Your task to perform on an android device: turn vacation reply on in the gmail app Image 0: 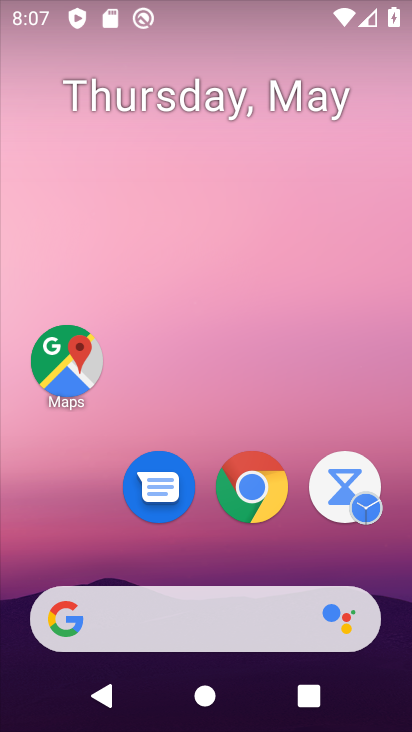
Step 0: drag from (196, 565) to (216, 184)
Your task to perform on an android device: turn vacation reply on in the gmail app Image 1: 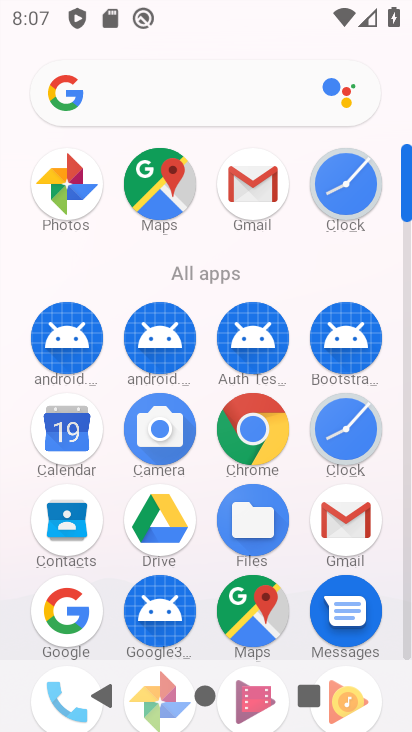
Step 1: click (353, 532)
Your task to perform on an android device: turn vacation reply on in the gmail app Image 2: 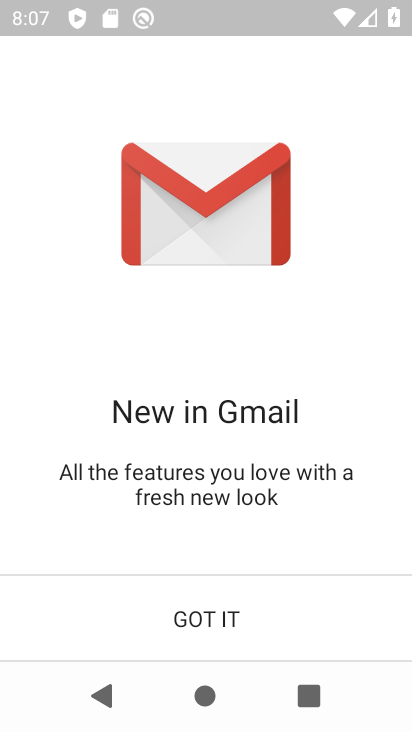
Step 2: click (350, 619)
Your task to perform on an android device: turn vacation reply on in the gmail app Image 3: 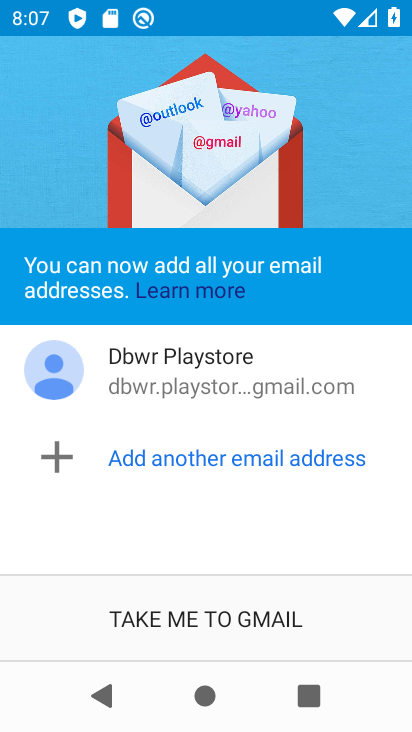
Step 3: click (348, 621)
Your task to perform on an android device: turn vacation reply on in the gmail app Image 4: 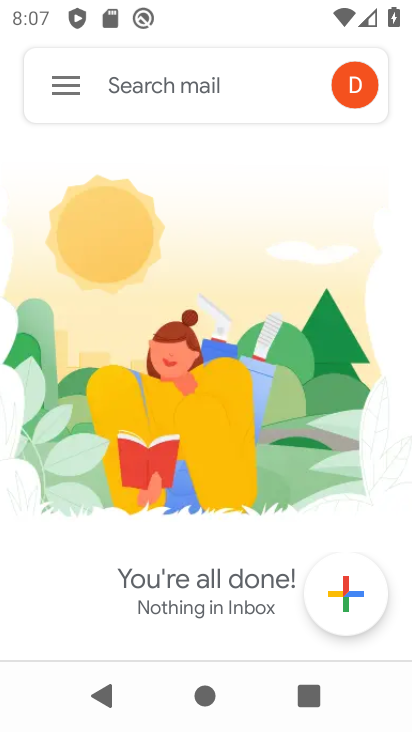
Step 4: click (66, 83)
Your task to perform on an android device: turn vacation reply on in the gmail app Image 5: 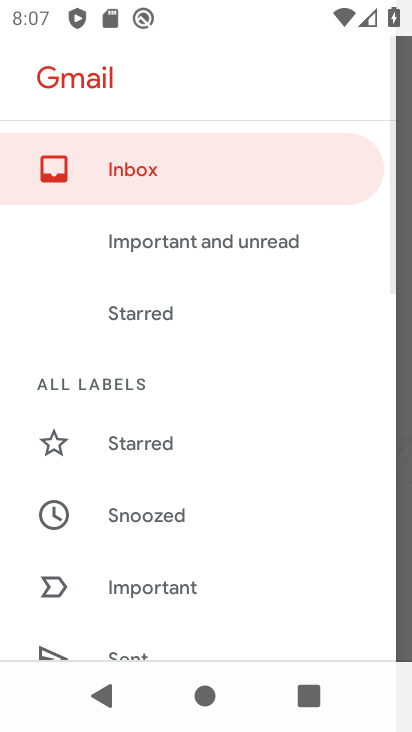
Step 5: drag from (281, 522) to (285, 414)
Your task to perform on an android device: turn vacation reply on in the gmail app Image 6: 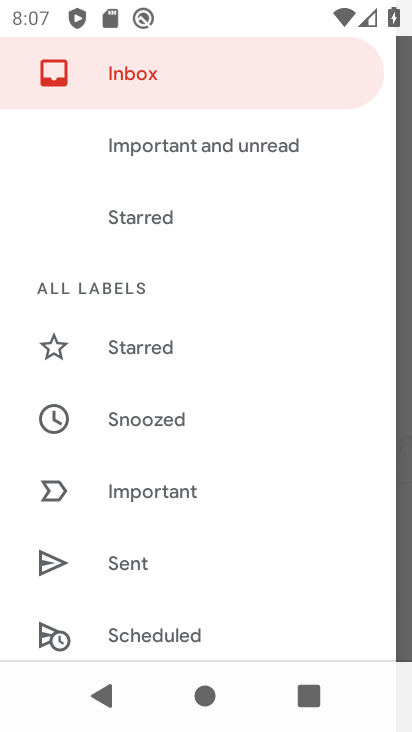
Step 6: drag from (306, 575) to (301, 454)
Your task to perform on an android device: turn vacation reply on in the gmail app Image 7: 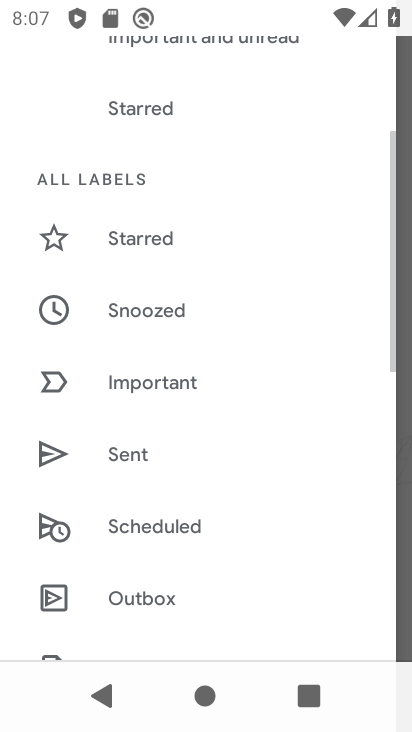
Step 7: drag from (309, 611) to (308, 485)
Your task to perform on an android device: turn vacation reply on in the gmail app Image 8: 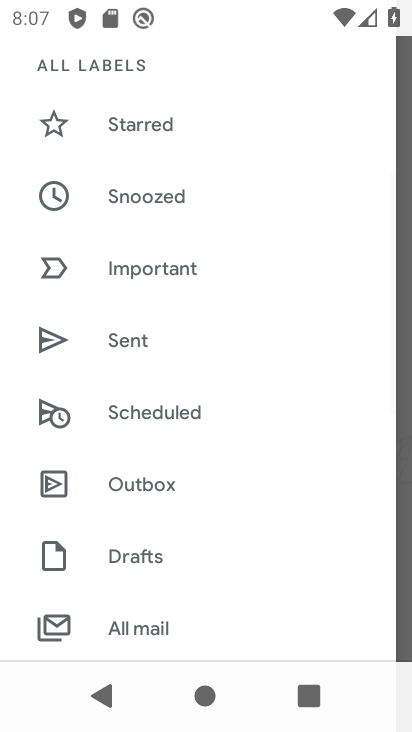
Step 8: drag from (321, 596) to (322, 475)
Your task to perform on an android device: turn vacation reply on in the gmail app Image 9: 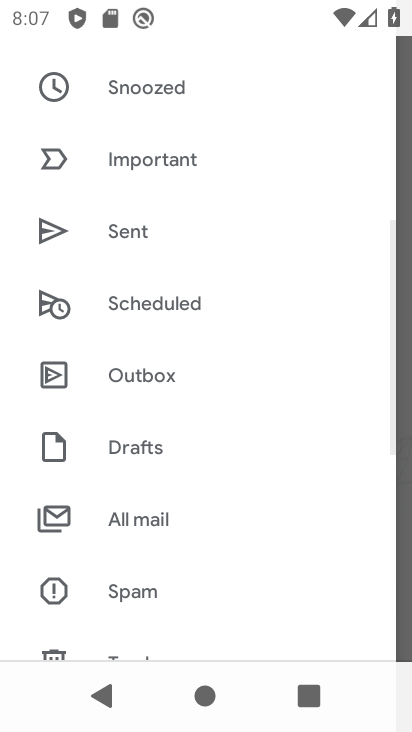
Step 9: drag from (318, 599) to (323, 477)
Your task to perform on an android device: turn vacation reply on in the gmail app Image 10: 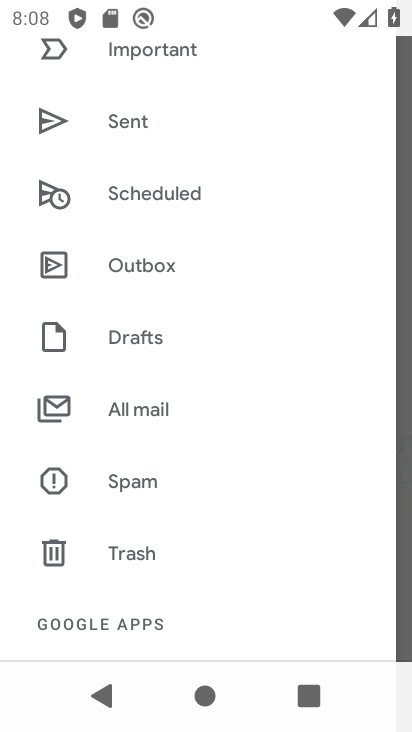
Step 10: drag from (327, 581) to (320, 456)
Your task to perform on an android device: turn vacation reply on in the gmail app Image 11: 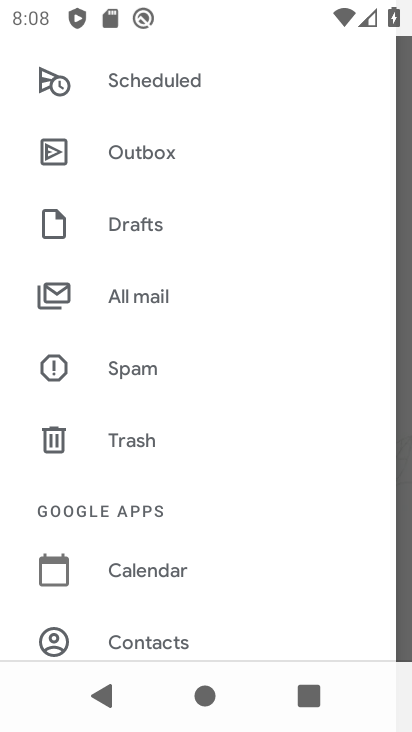
Step 11: drag from (326, 611) to (325, 501)
Your task to perform on an android device: turn vacation reply on in the gmail app Image 12: 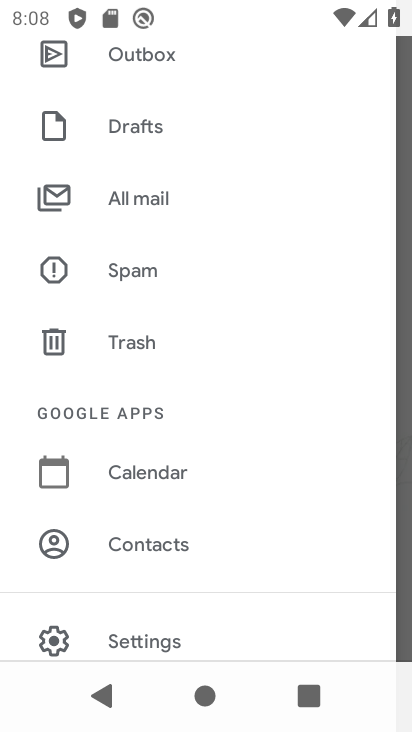
Step 12: drag from (334, 614) to (327, 422)
Your task to perform on an android device: turn vacation reply on in the gmail app Image 13: 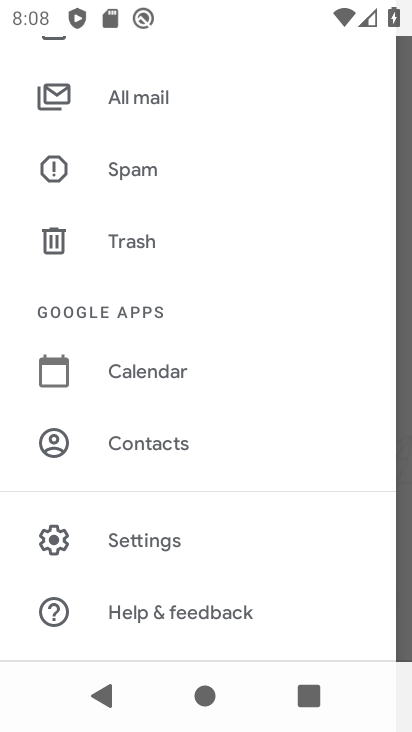
Step 13: click (264, 542)
Your task to perform on an android device: turn vacation reply on in the gmail app Image 14: 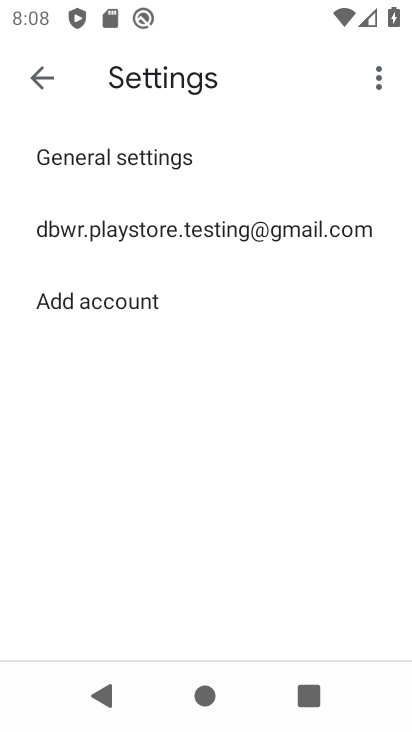
Step 14: click (315, 240)
Your task to perform on an android device: turn vacation reply on in the gmail app Image 15: 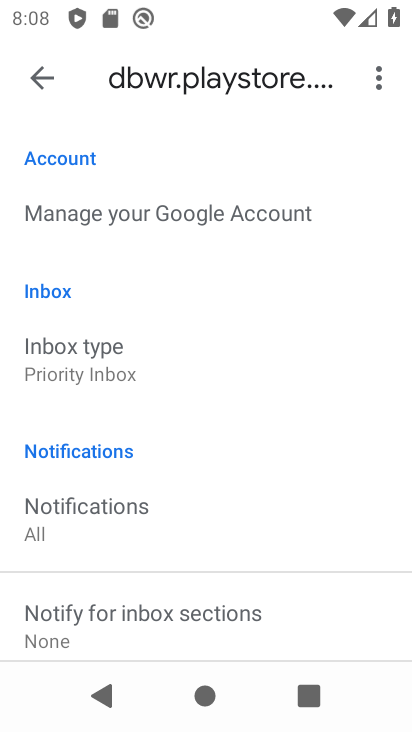
Step 15: drag from (339, 570) to (332, 452)
Your task to perform on an android device: turn vacation reply on in the gmail app Image 16: 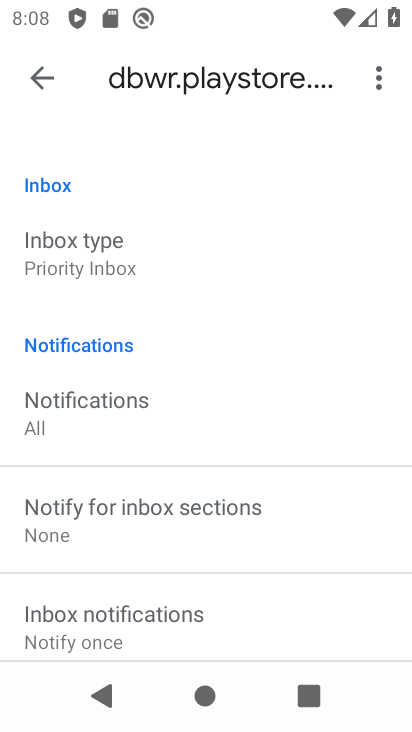
Step 16: drag from (323, 589) to (330, 467)
Your task to perform on an android device: turn vacation reply on in the gmail app Image 17: 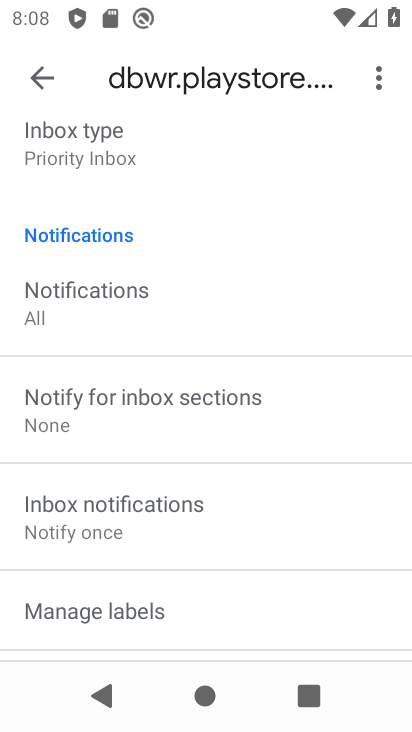
Step 17: drag from (337, 599) to (342, 503)
Your task to perform on an android device: turn vacation reply on in the gmail app Image 18: 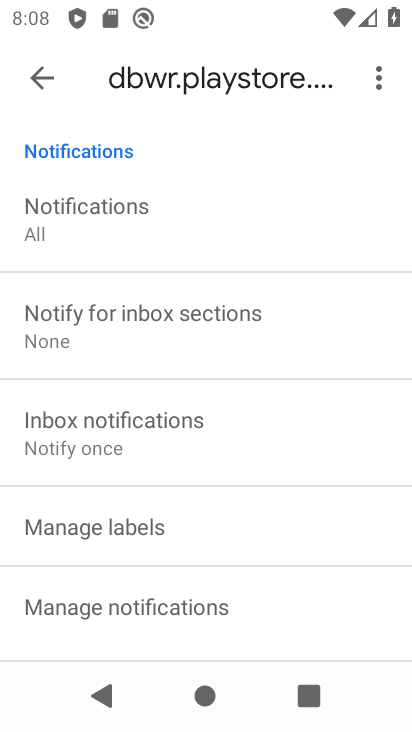
Step 18: drag from (344, 605) to (349, 496)
Your task to perform on an android device: turn vacation reply on in the gmail app Image 19: 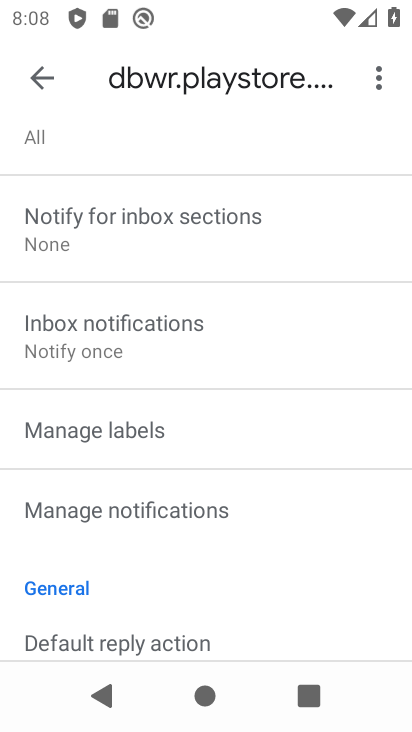
Step 19: drag from (349, 602) to (350, 488)
Your task to perform on an android device: turn vacation reply on in the gmail app Image 20: 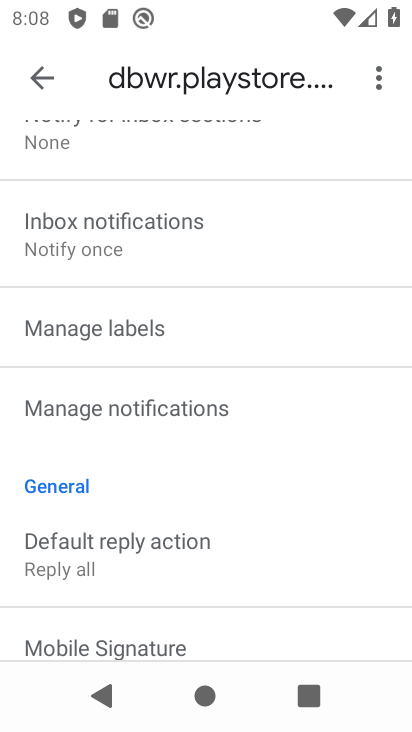
Step 20: drag from (346, 607) to (335, 466)
Your task to perform on an android device: turn vacation reply on in the gmail app Image 21: 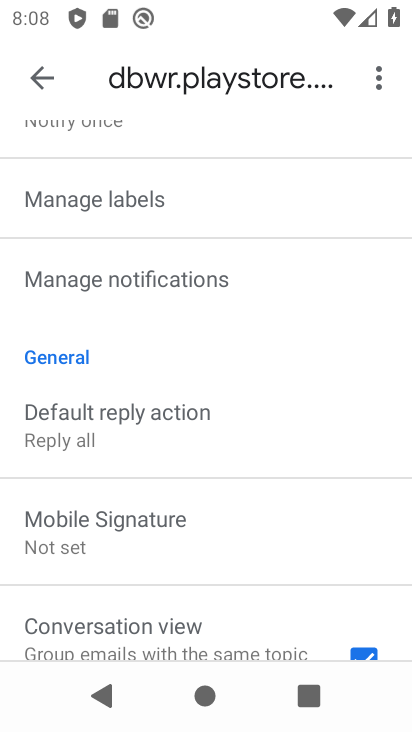
Step 21: drag from (322, 537) to (312, 436)
Your task to perform on an android device: turn vacation reply on in the gmail app Image 22: 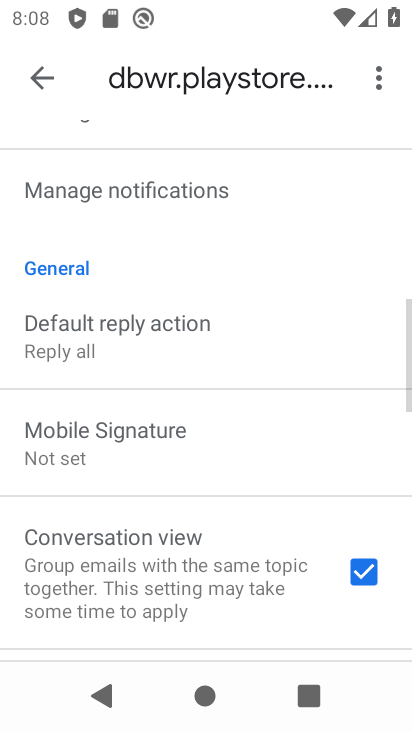
Step 22: drag from (317, 596) to (307, 477)
Your task to perform on an android device: turn vacation reply on in the gmail app Image 23: 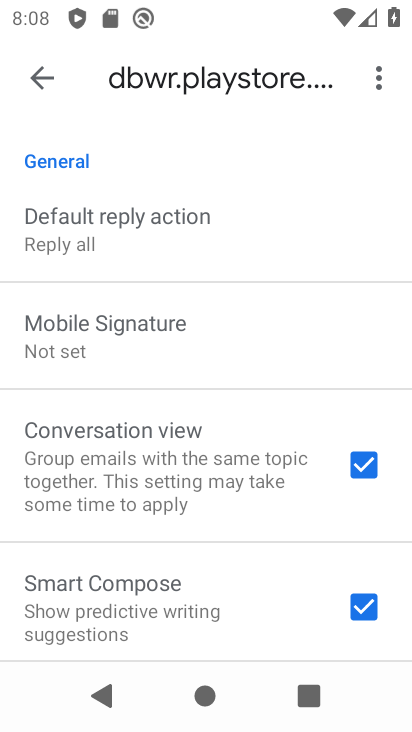
Step 23: drag from (282, 600) to (276, 494)
Your task to perform on an android device: turn vacation reply on in the gmail app Image 24: 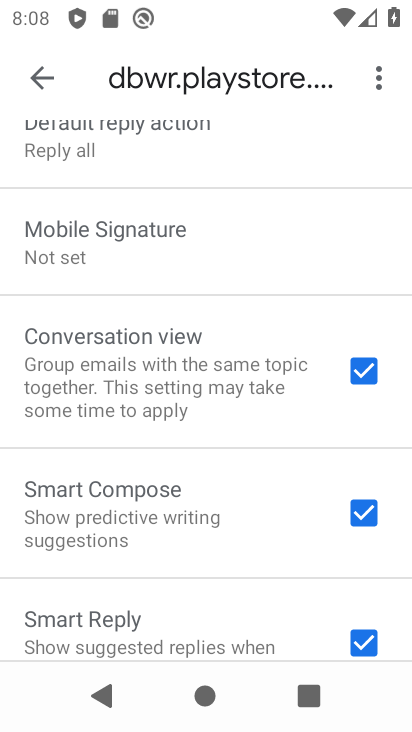
Step 24: drag from (267, 590) to (276, 499)
Your task to perform on an android device: turn vacation reply on in the gmail app Image 25: 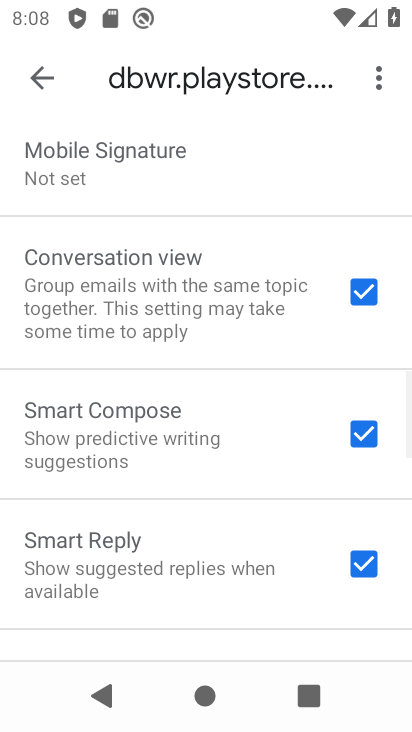
Step 25: drag from (273, 605) to (269, 513)
Your task to perform on an android device: turn vacation reply on in the gmail app Image 26: 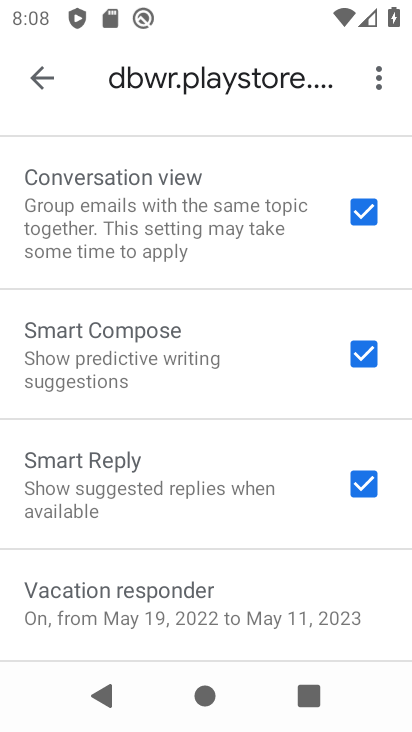
Step 26: drag from (285, 619) to (295, 507)
Your task to perform on an android device: turn vacation reply on in the gmail app Image 27: 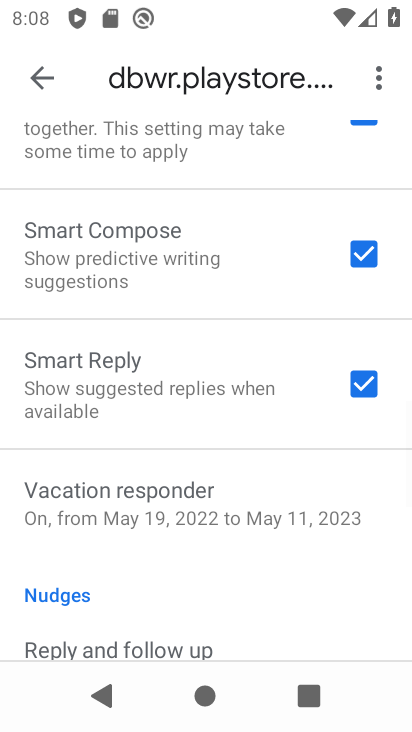
Step 27: click (298, 528)
Your task to perform on an android device: turn vacation reply on in the gmail app Image 28: 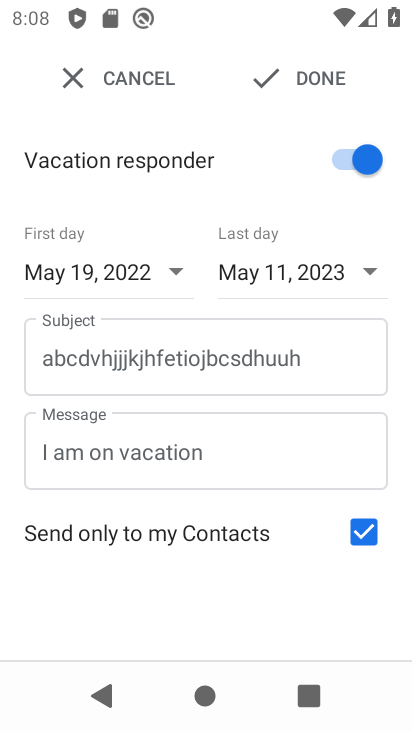
Step 28: task complete